Your task to perform on an android device: Go to Google maps Image 0: 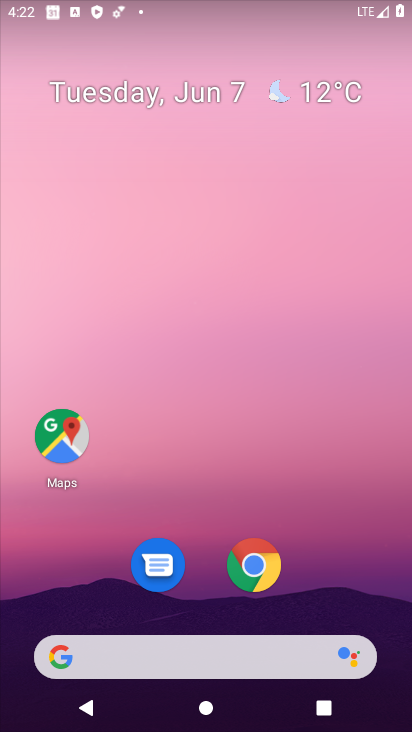
Step 0: drag from (295, 663) to (303, 52)
Your task to perform on an android device: Go to Google maps Image 1: 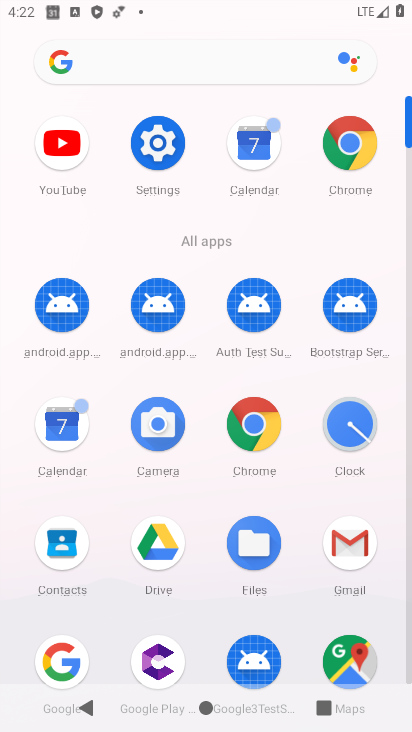
Step 1: click (330, 647)
Your task to perform on an android device: Go to Google maps Image 2: 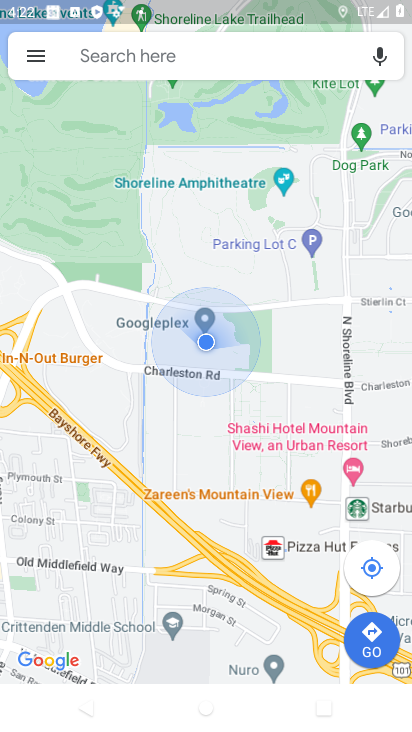
Step 2: task complete